Your task to perform on an android device: open chrome privacy settings Image 0: 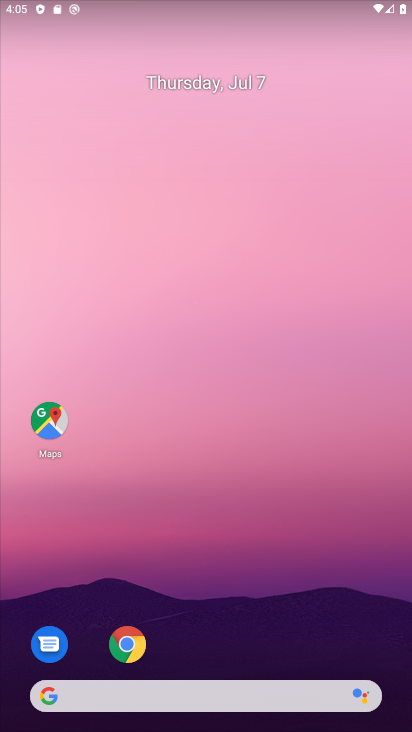
Step 0: click (128, 636)
Your task to perform on an android device: open chrome privacy settings Image 1: 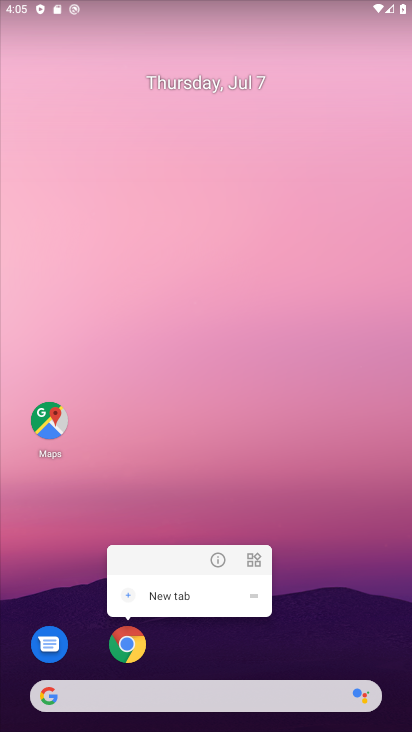
Step 1: click (129, 634)
Your task to perform on an android device: open chrome privacy settings Image 2: 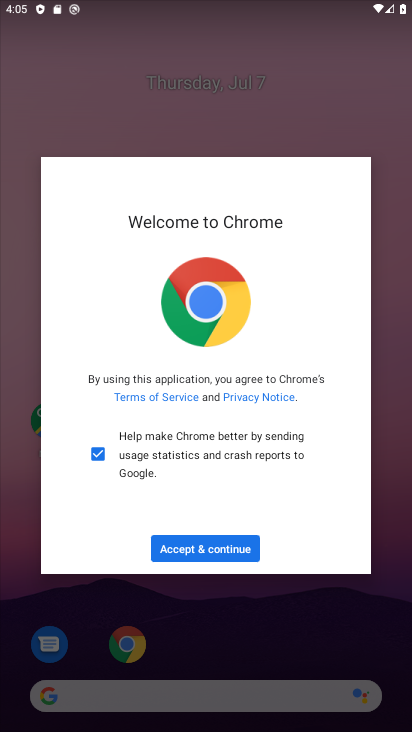
Step 2: click (214, 544)
Your task to perform on an android device: open chrome privacy settings Image 3: 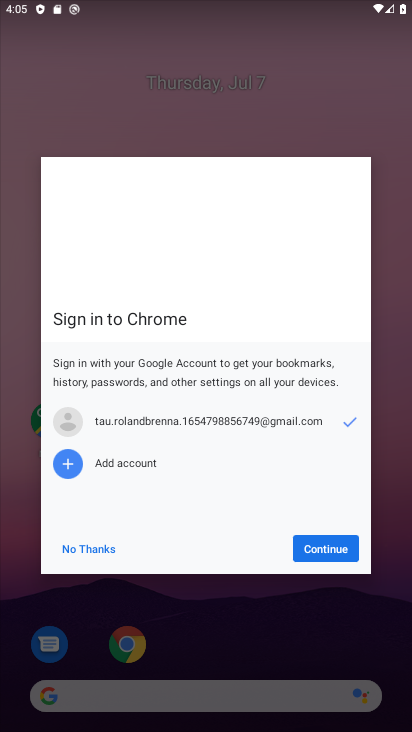
Step 3: click (359, 544)
Your task to perform on an android device: open chrome privacy settings Image 4: 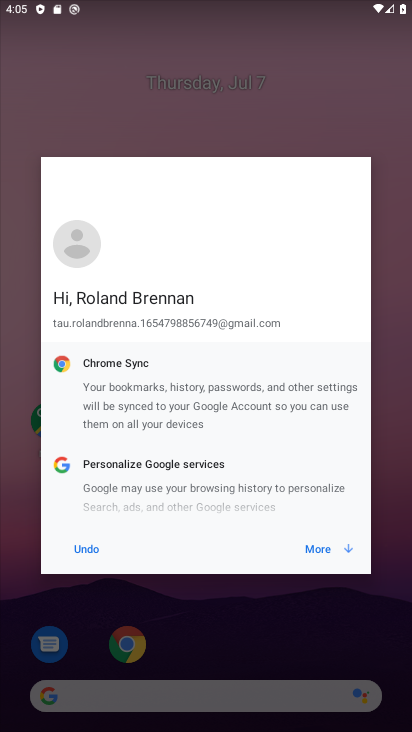
Step 4: click (333, 549)
Your task to perform on an android device: open chrome privacy settings Image 5: 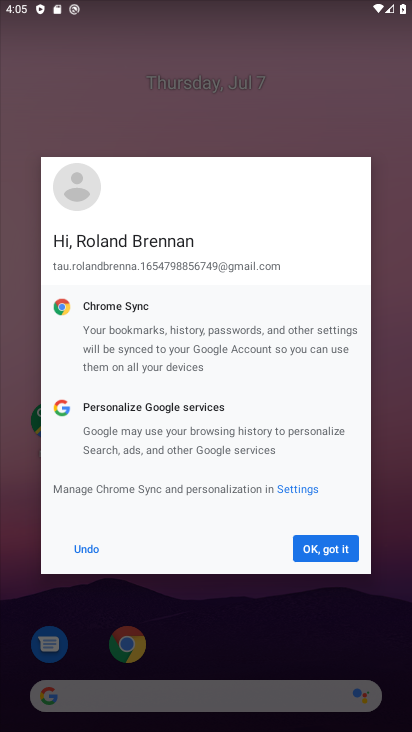
Step 5: click (333, 549)
Your task to perform on an android device: open chrome privacy settings Image 6: 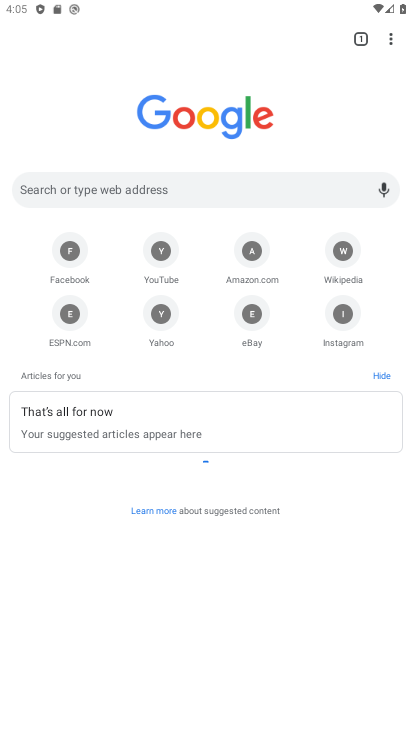
Step 6: click (386, 38)
Your task to perform on an android device: open chrome privacy settings Image 7: 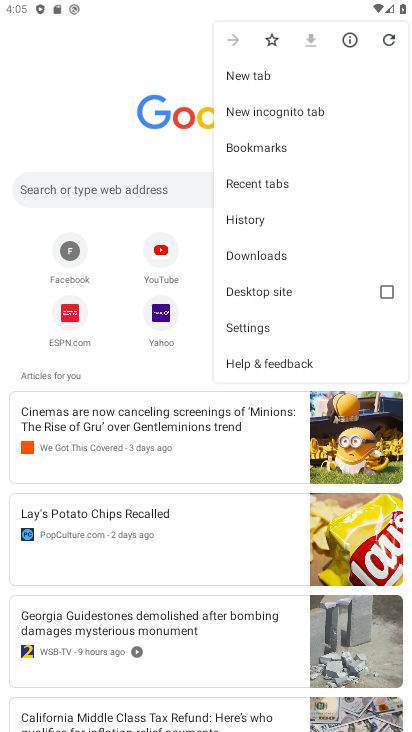
Step 7: click (258, 329)
Your task to perform on an android device: open chrome privacy settings Image 8: 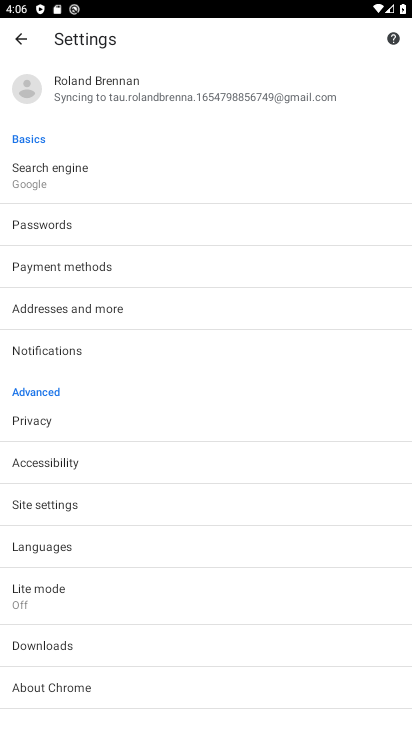
Step 8: click (60, 409)
Your task to perform on an android device: open chrome privacy settings Image 9: 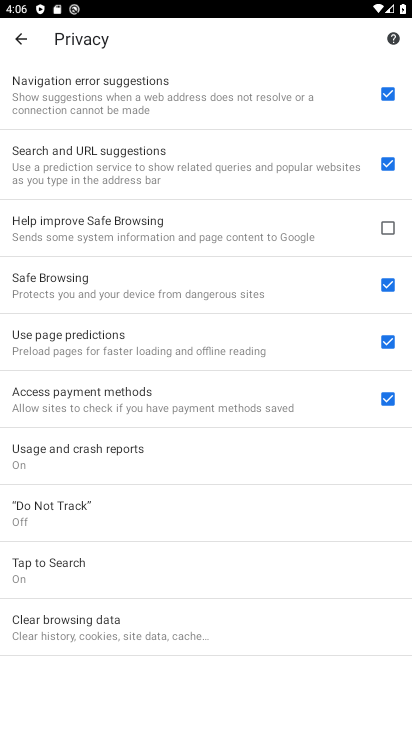
Step 9: task complete